Your task to perform on an android device: What's on my calendar today? Image 0: 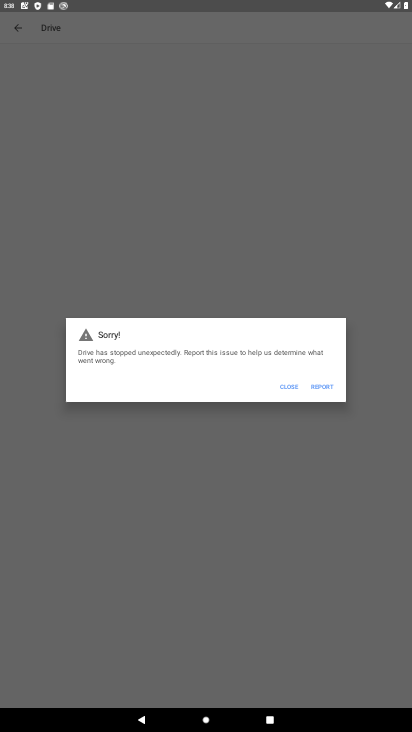
Step 0: task complete